Your task to perform on an android device: refresh tabs in the chrome app Image 0: 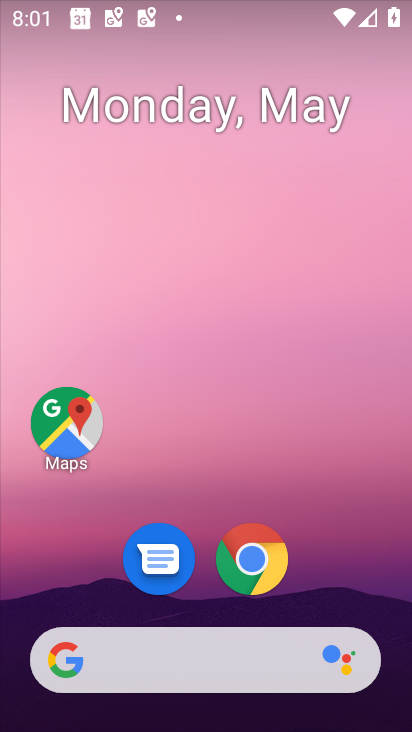
Step 0: drag from (385, 625) to (303, 40)
Your task to perform on an android device: refresh tabs in the chrome app Image 1: 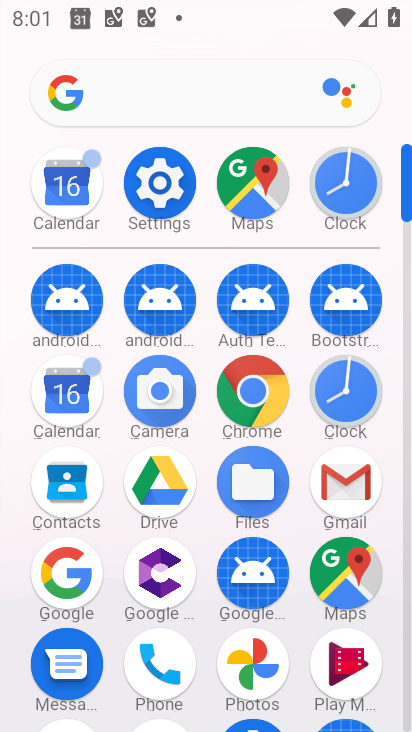
Step 1: click (248, 392)
Your task to perform on an android device: refresh tabs in the chrome app Image 2: 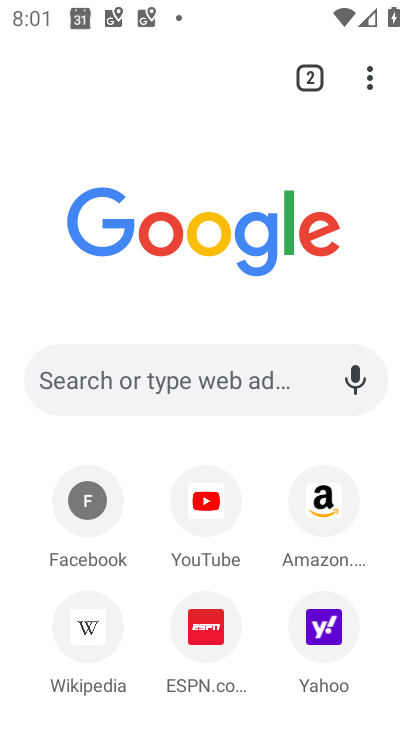
Step 2: click (371, 80)
Your task to perform on an android device: refresh tabs in the chrome app Image 3: 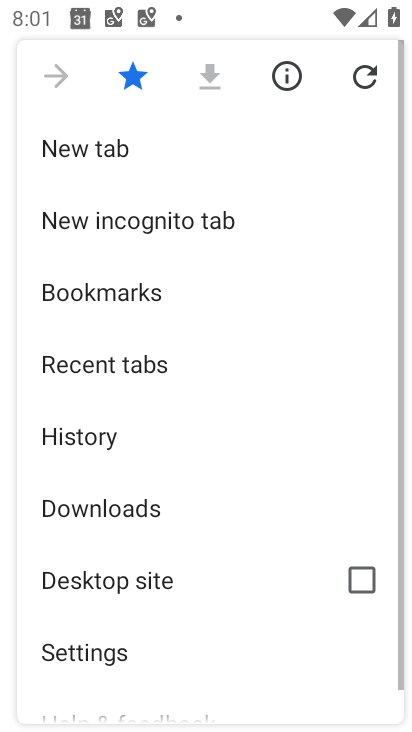
Step 3: click (371, 80)
Your task to perform on an android device: refresh tabs in the chrome app Image 4: 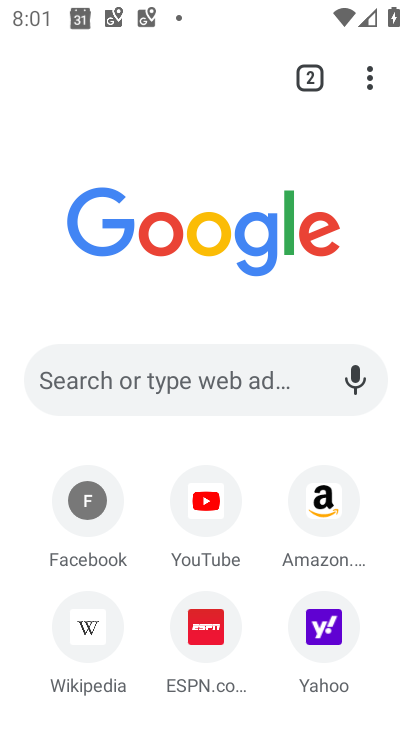
Step 4: task complete